Your task to perform on an android device: Open notification settings Image 0: 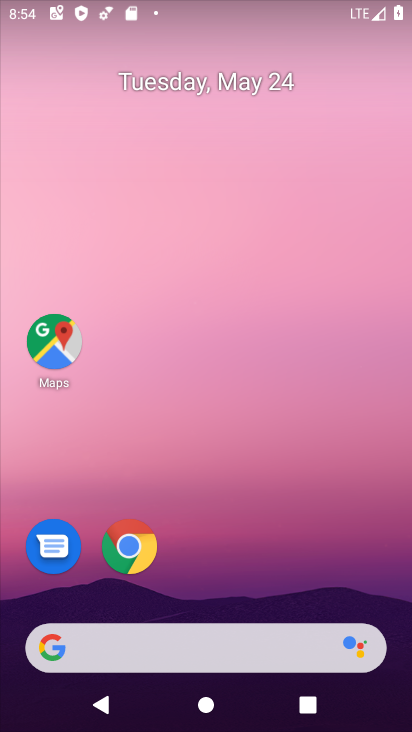
Step 0: drag from (230, 536) to (267, 2)
Your task to perform on an android device: Open notification settings Image 1: 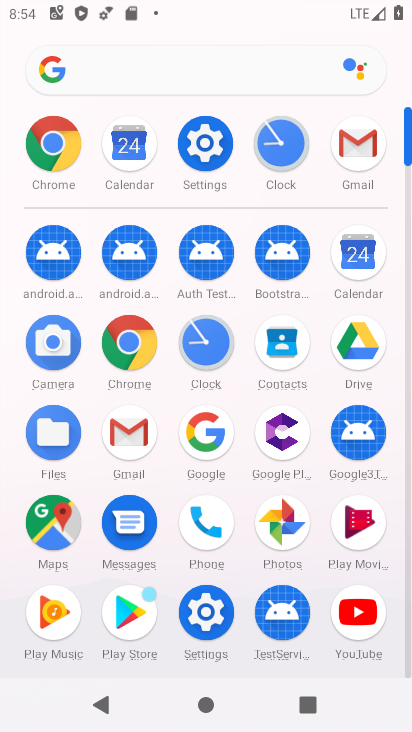
Step 1: click (212, 143)
Your task to perform on an android device: Open notification settings Image 2: 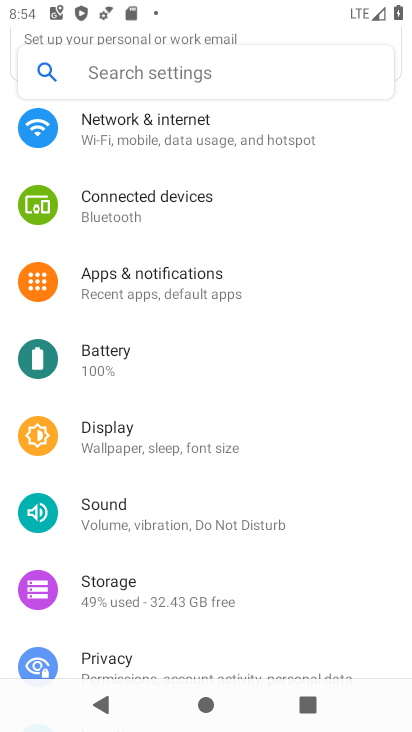
Step 2: click (212, 285)
Your task to perform on an android device: Open notification settings Image 3: 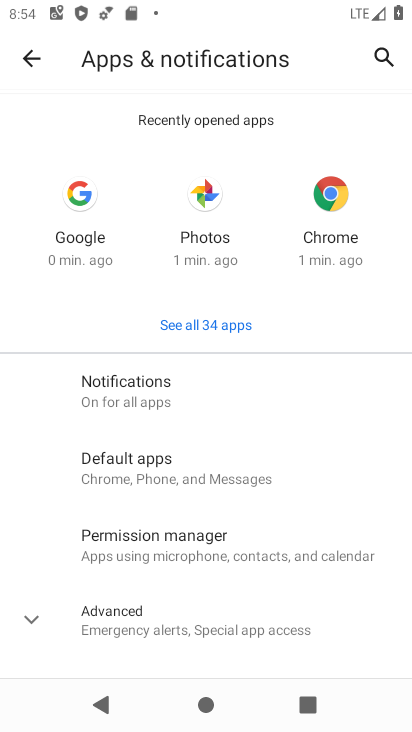
Step 3: click (193, 401)
Your task to perform on an android device: Open notification settings Image 4: 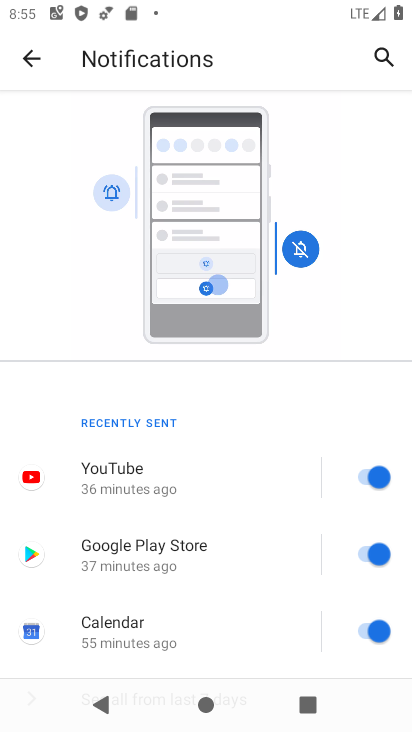
Step 4: task complete